Your task to perform on an android device: Go to location settings Image 0: 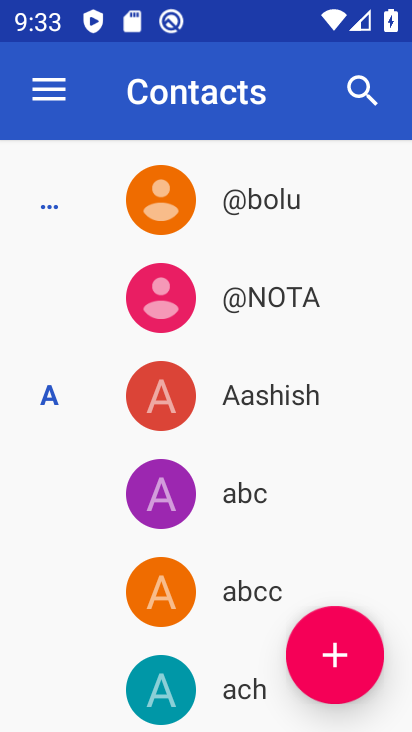
Step 0: press home button
Your task to perform on an android device: Go to location settings Image 1: 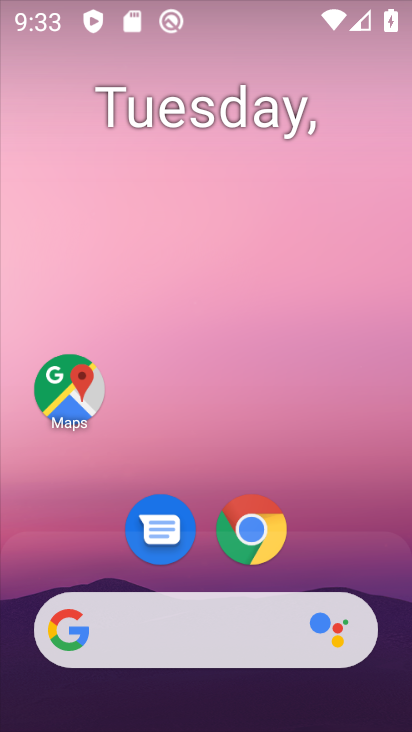
Step 1: drag from (134, 602) to (212, 209)
Your task to perform on an android device: Go to location settings Image 2: 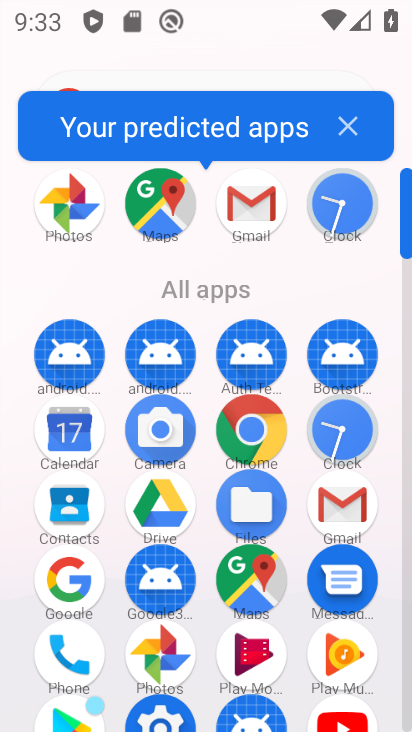
Step 2: drag from (154, 599) to (212, 147)
Your task to perform on an android device: Go to location settings Image 3: 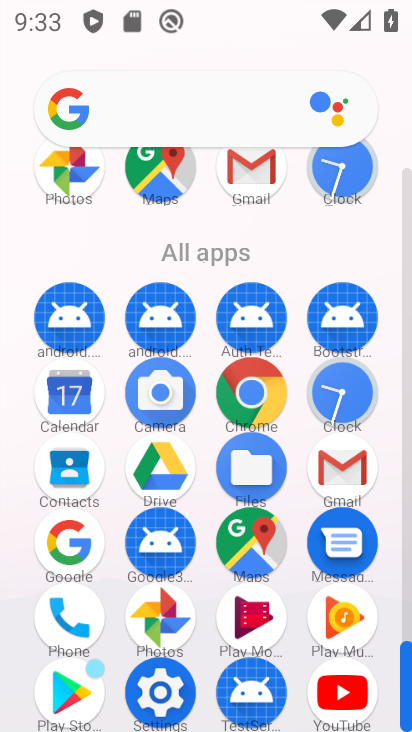
Step 3: click (160, 702)
Your task to perform on an android device: Go to location settings Image 4: 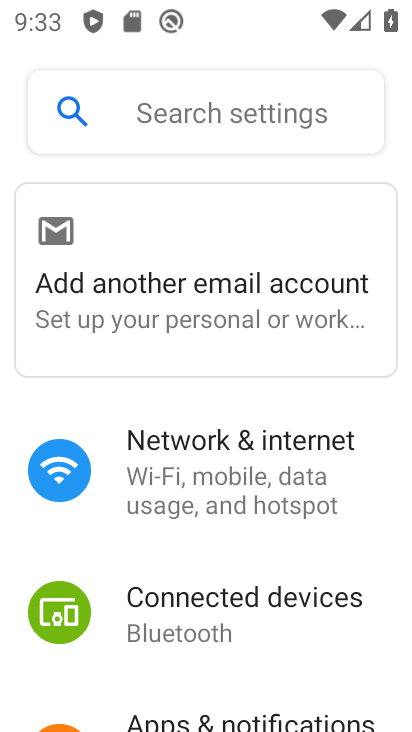
Step 4: drag from (217, 642) to (284, 337)
Your task to perform on an android device: Go to location settings Image 5: 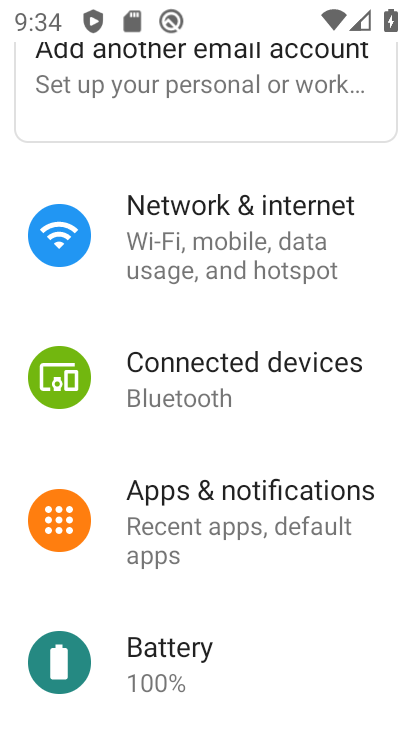
Step 5: drag from (227, 684) to (309, 313)
Your task to perform on an android device: Go to location settings Image 6: 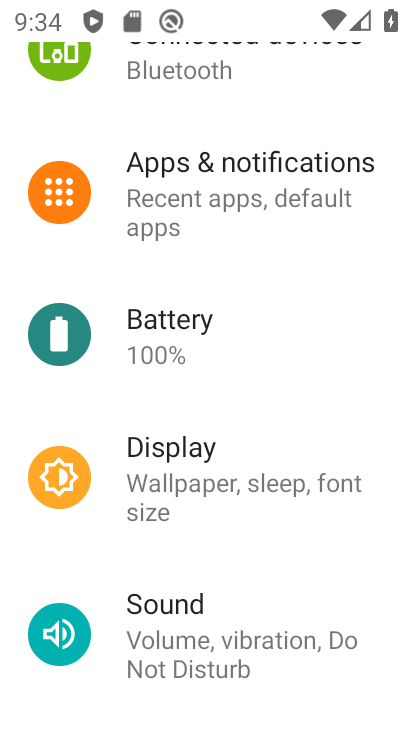
Step 6: drag from (208, 638) to (234, 277)
Your task to perform on an android device: Go to location settings Image 7: 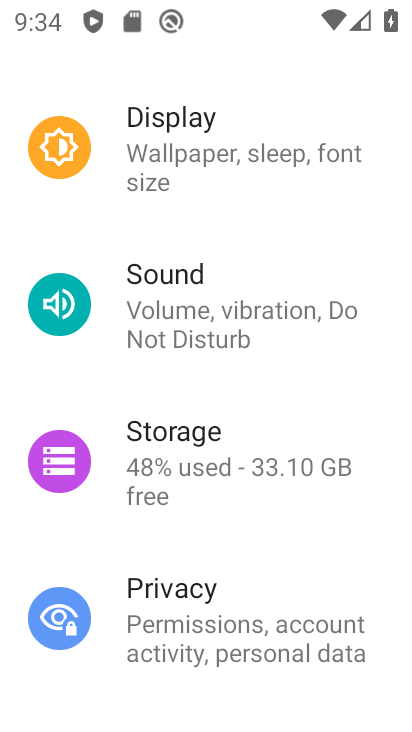
Step 7: drag from (186, 658) to (214, 402)
Your task to perform on an android device: Go to location settings Image 8: 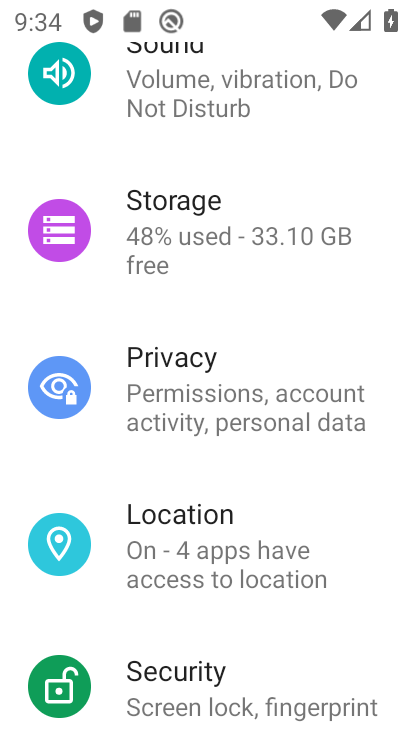
Step 8: click (216, 529)
Your task to perform on an android device: Go to location settings Image 9: 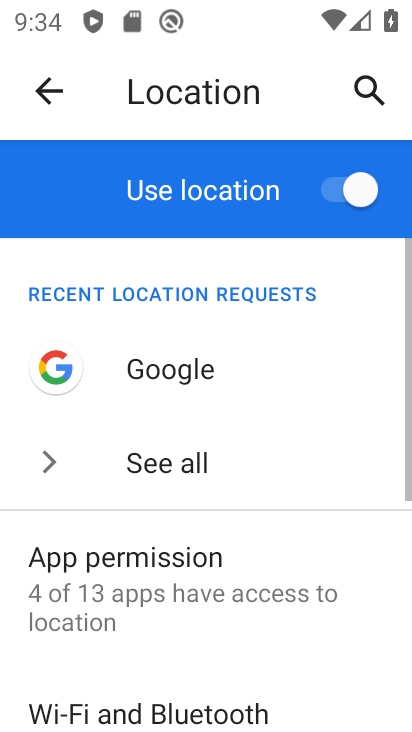
Step 9: drag from (215, 685) to (254, 342)
Your task to perform on an android device: Go to location settings Image 10: 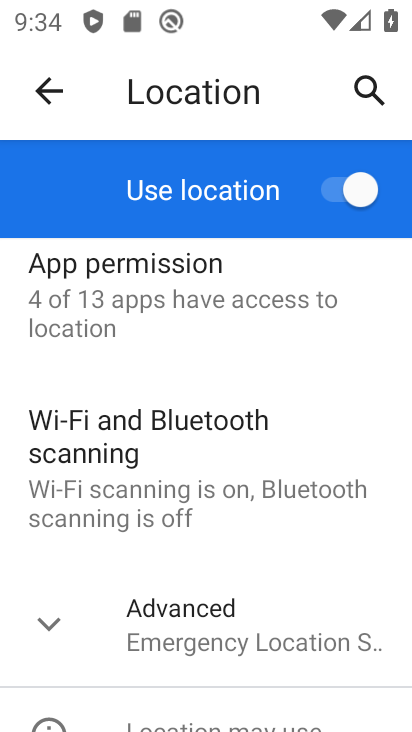
Step 10: click (186, 624)
Your task to perform on an android device: Go to location settings Image 11: 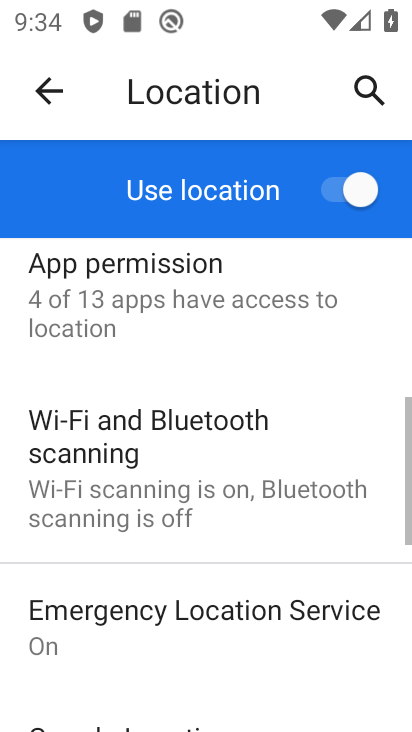
Step 11: task complete